Your task to perform on an android device: toggle improve location accuracy Image 0: 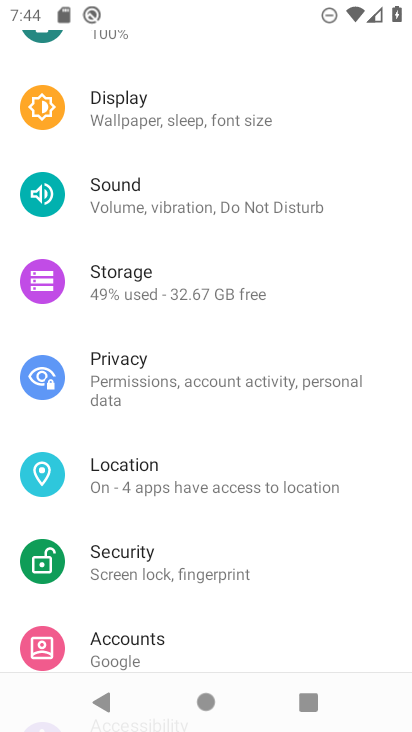
Step 0: press home button
Your task to perform on an android device: toggle improve location accuracy Image 1: 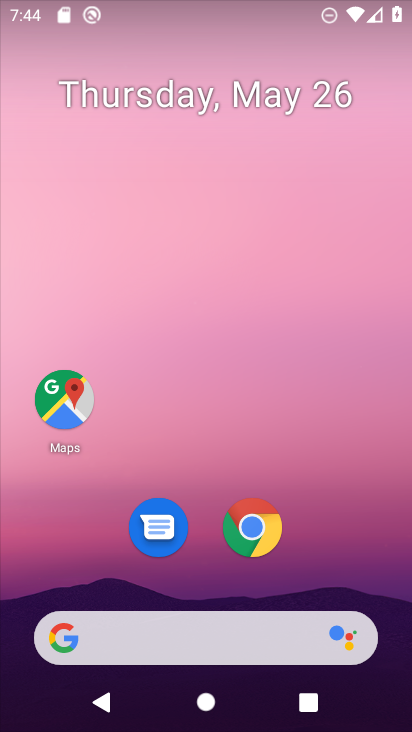
Step 1: drag from (62, 379) to (186, 128)
Your task to perform on an android device: toggle improve location accuracy Image 2: 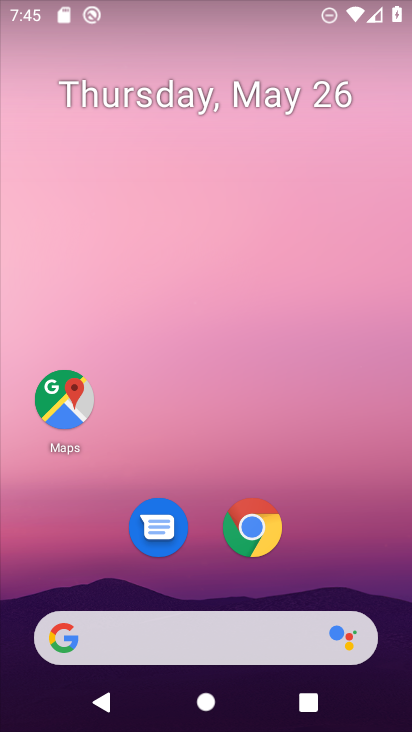
Step 2: drag from (79, 550) to (353, 77)
Your task to perform on an android device: toggle improve location accuracy Image 3: 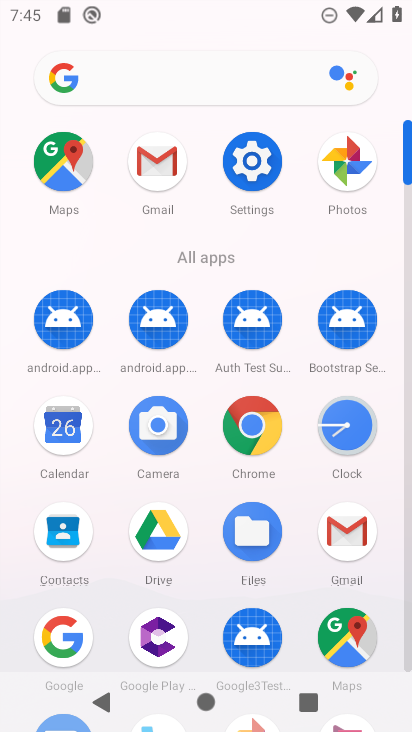
Step 3: click (243, 164)
Your task to perform on an android device: toggle improve location accuracy Image 4: 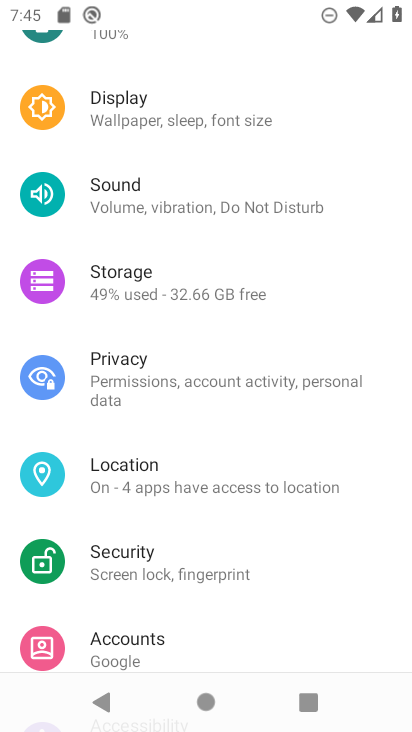
Step 4: click (112, 477)
Your task to perform on an android device: toggle improve location accuracy Image 5: 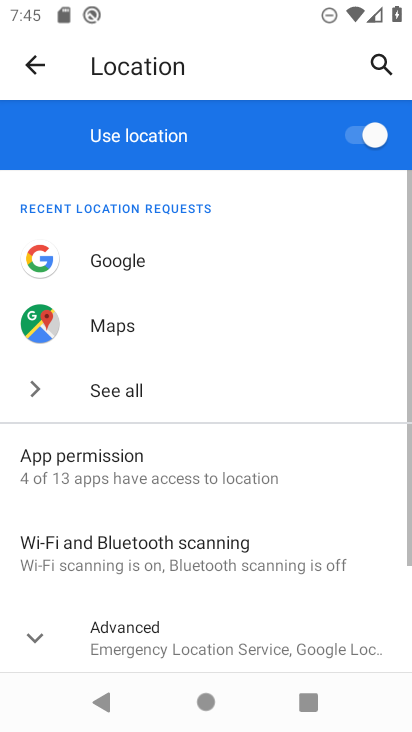
Step 5: click (222, 641)
Your task to perform on an android device: toggle improve location accuracy Image 6: 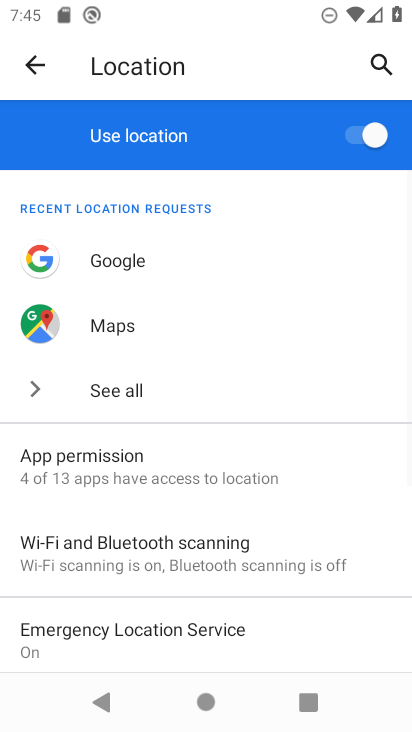
Step 6: drag from (18, 621) to (220, 191)
Your task to perform on an android device: toggle improve location accuracy Image 7: 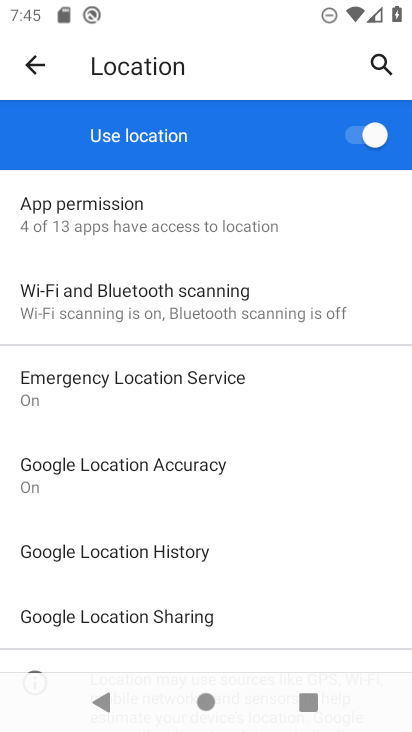
Step 7: click (118, 480)
Your task to perform on an android device: toggle improve location accuracy Image 8: 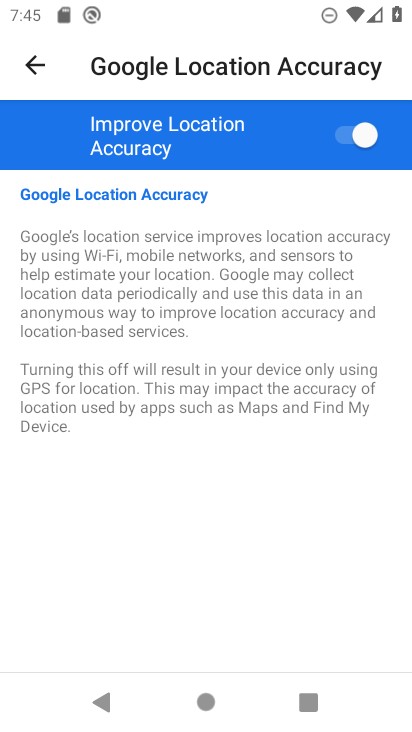
Step 8: click (370, 135)
Your task to perform on an android device: toggle improve location accuracy Image 9: 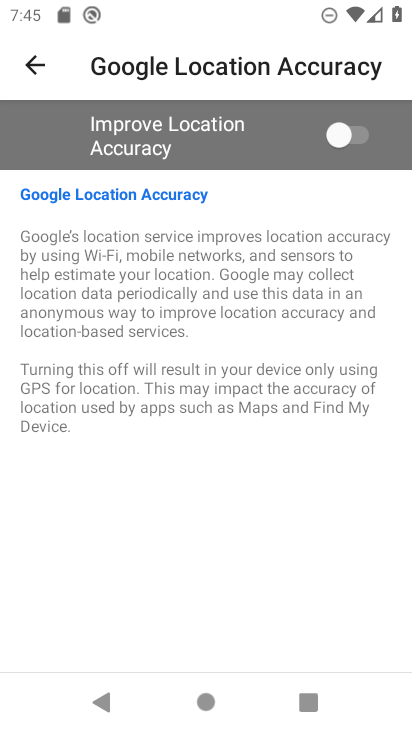
Step 9: task complete